Your task to perform on an android device: change keyboard looks Image 0: 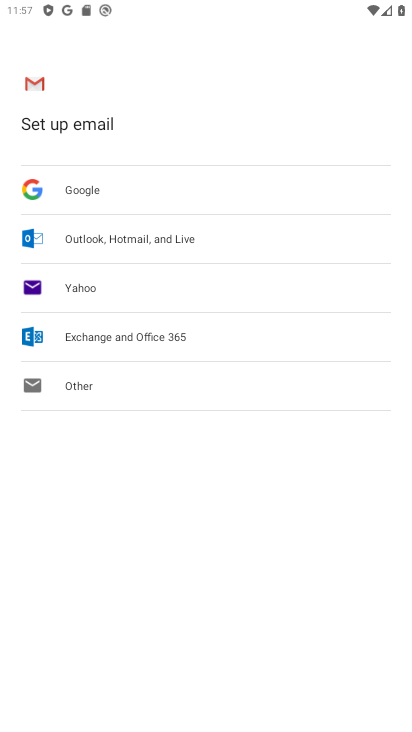
Step 0: drag from (151, 508) to (288, 126)
Your task to perform on an android device: change keyboard looks Image 1: 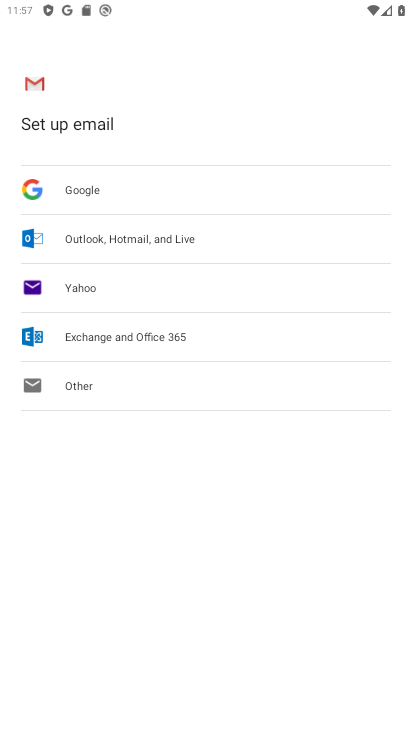
Step 1: press home button
Your task to perform on an android device: change keyboard looks Image 2: 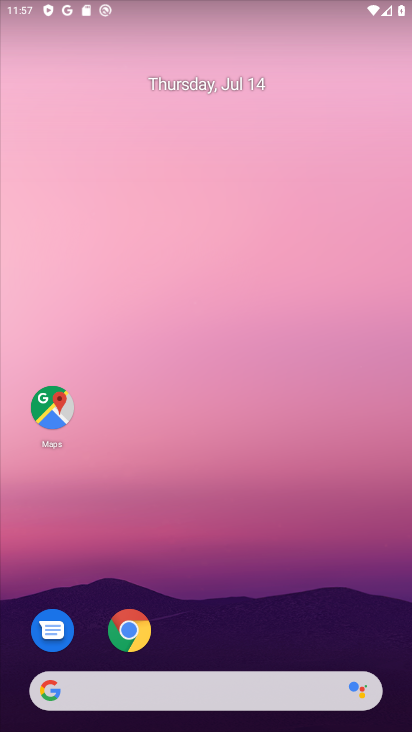
Step 2: drag from (219, 628) to (295, 98)
Your task to perform on an android device: change keyboard looks Image 3: 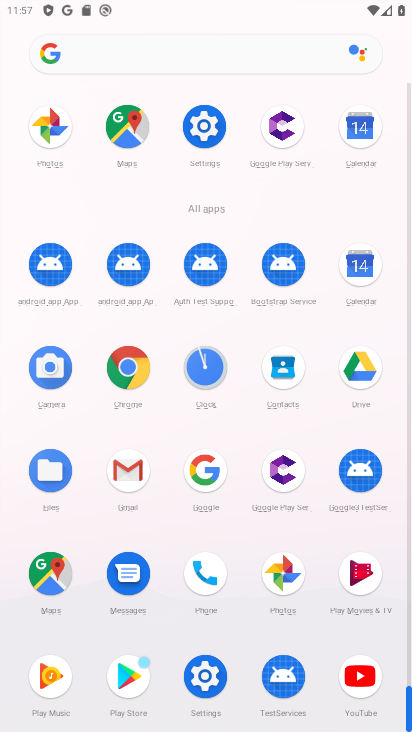
Step 3: click (197, 688)
Your task to perform on an android device: change keyboard looks Image 4: 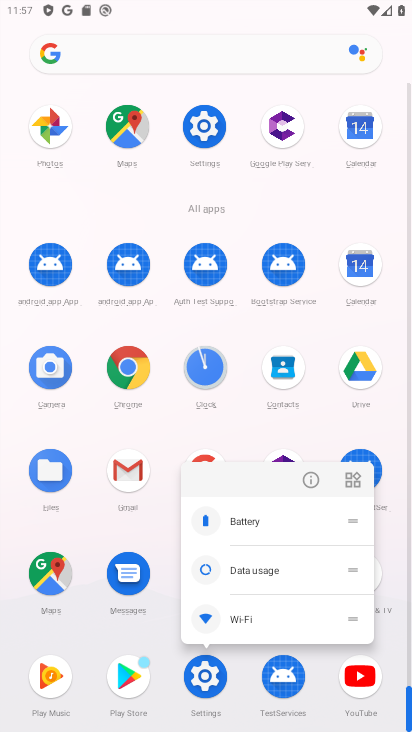
Step 4: click (301, 468)
Your task to perform on an android device: change keyboard looks Image 5: 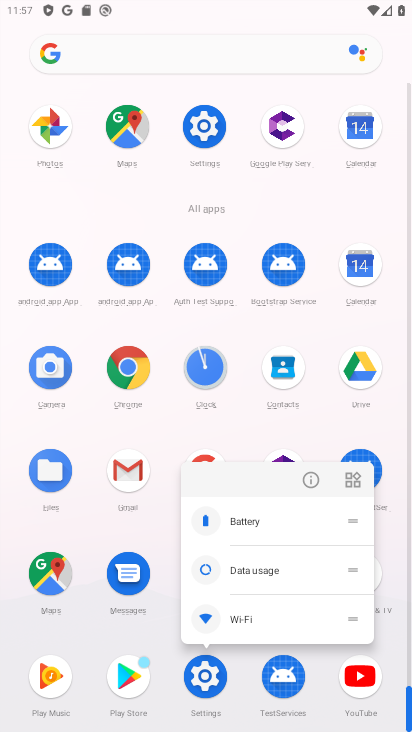
Step 5: click (301, 468)
Your task to perform on an android device: change keyboard looks Image 6: 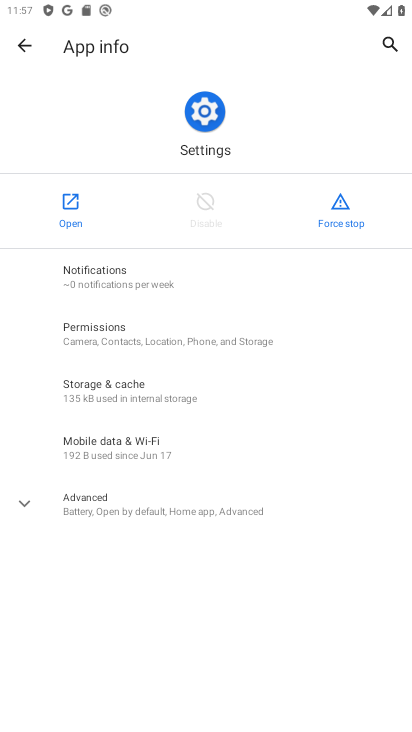
Step 6: click (67, 213)
Your task to perform on an android device: change keyboard looks Image 7: 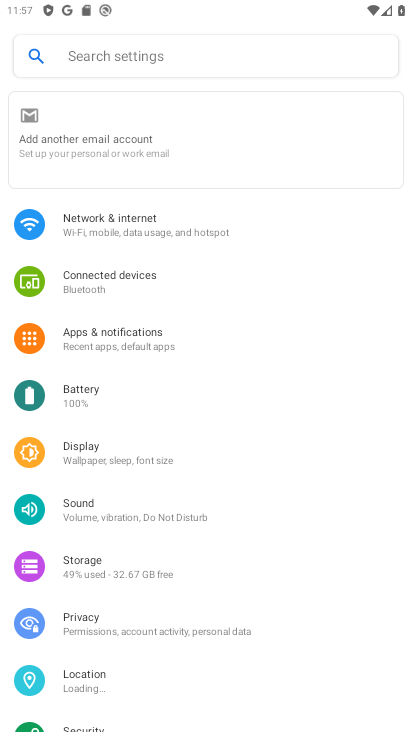
Step 7: drag from (188, 450) to (202, 254)
Your task to perform on an android device: change keyboard looks Image 8: 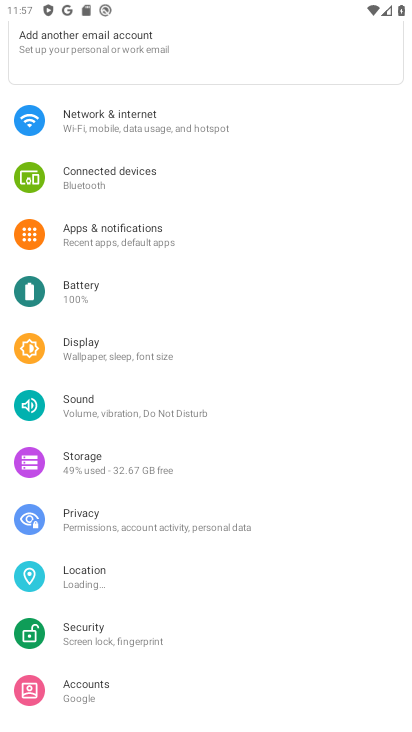
Step 8: drag from (187, 564) to (267, 218)
Your task to perform on an android device: change keyboard looks Image 9: 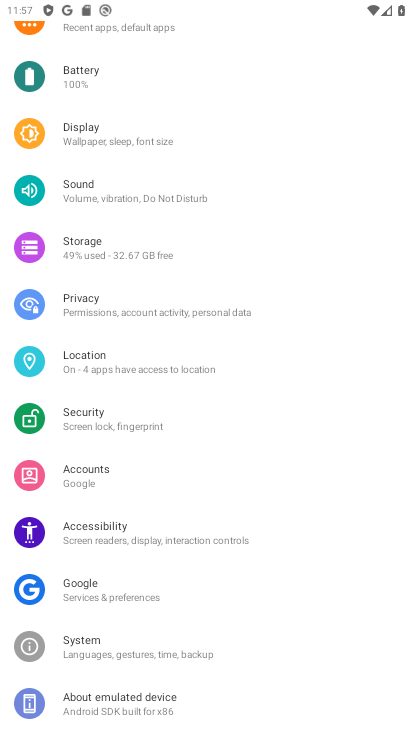
Step 9: click (82, 638)
Your task to perform on an android device: change keyboard looks Image 10: 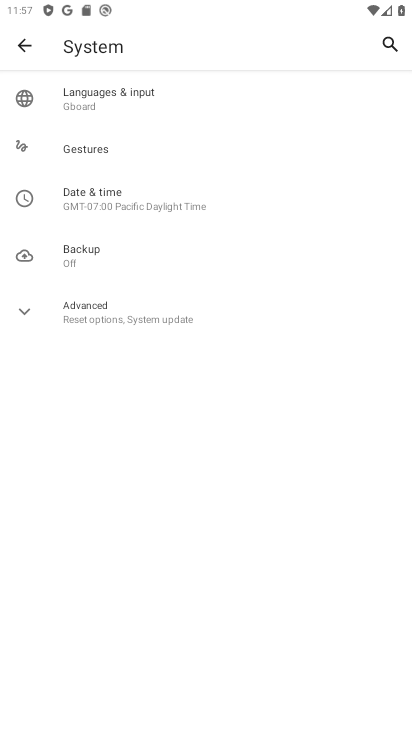
Step 10: click (138, 112)
Your task to perform on an android device: change keyboard looks Image 11: 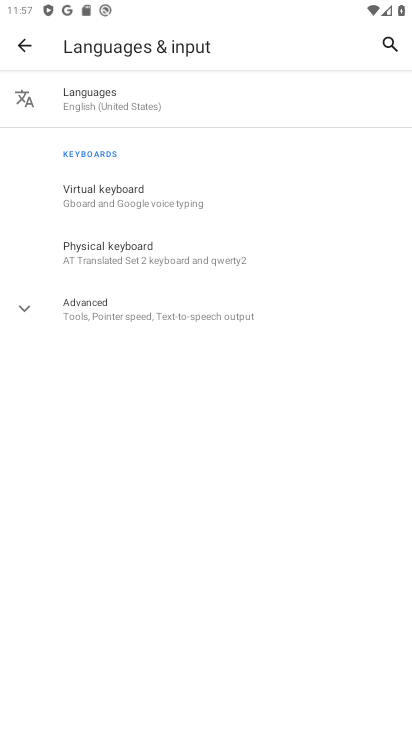
Step 11: click (157, 191)
Your task to perform on an android device: change keyboard looks Image 12: 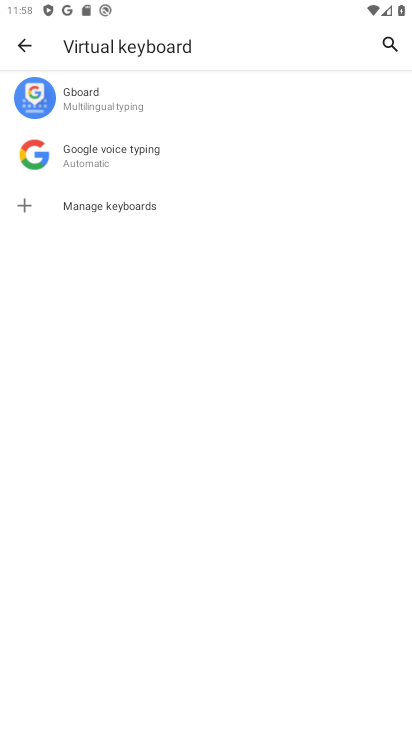
Step 12: drag from (249, 593) to (356, 108)
Your task to perform on an android device: change keyboard looks Image 13: 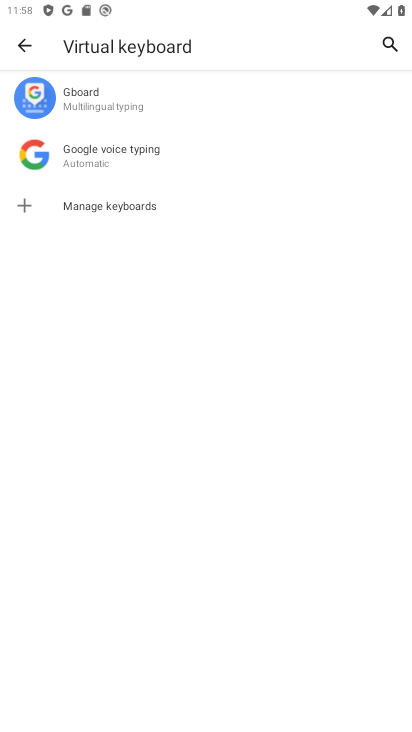
Step 13: drag from (232, 462) to (314, 111)
Your task to perform on an android device: change keyboard looks Image 14: 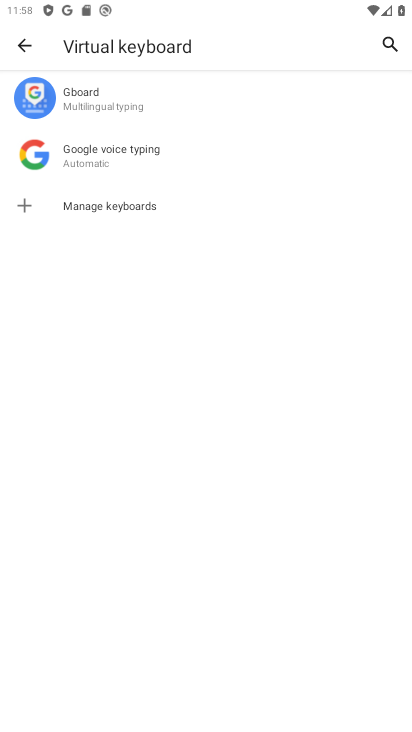
Step 14: drag from (195, 272) to (308, 16)
Your task to perform on an android device: change keyboard looks Image 15: 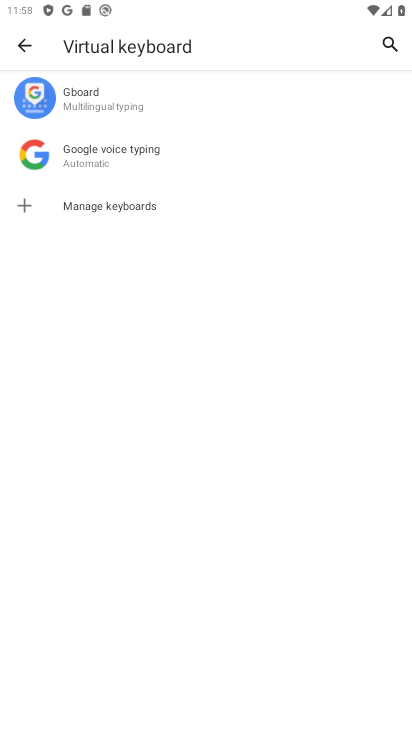
Step 15: drag from (216, 575) to (189, 56)
Your task to perform on an android device: change keyboard looks Image 16: 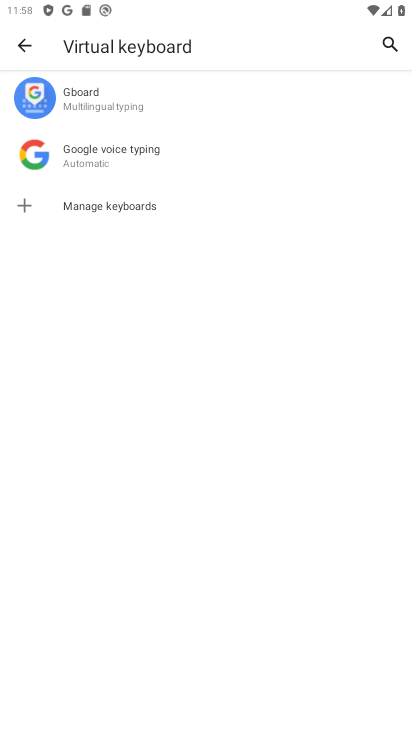
Step 16: drag from (246, 348) to (236, 278)
Your task to perform on an android device: change keyboard looks Image 17: 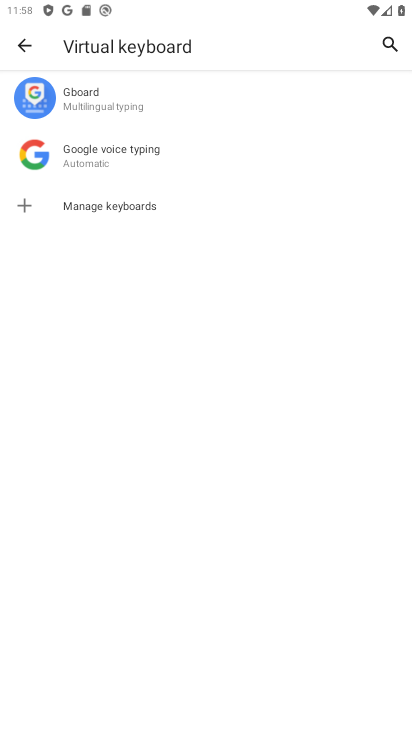
Step 17: drag from (173, 407) to (196, 562)
Your task to perform on an android device: change keyboard looks Image 18: 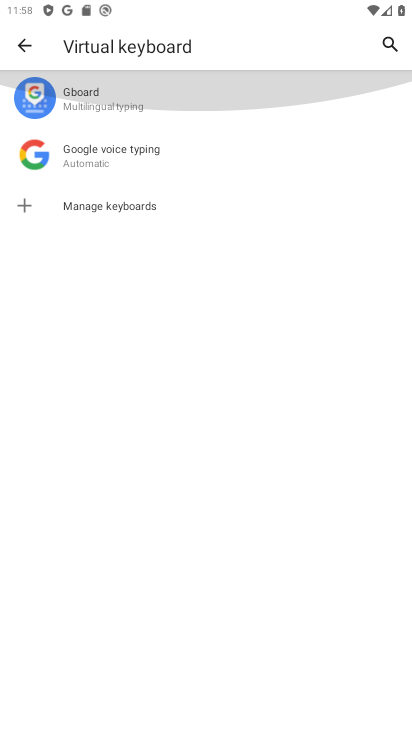
Step 18: drag from (196, 563) to (239, 236)
Your task to perform on an android device: change keyboard looks Image 19: 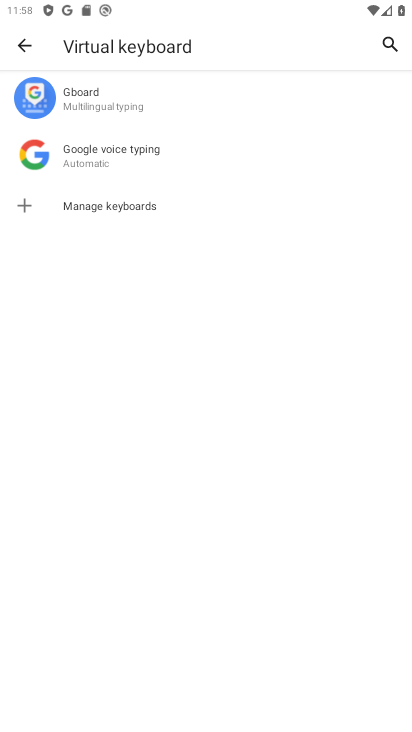
Step 19: click (118, 95)
Your task to perform on an android device: change keyboard looks Image 20: 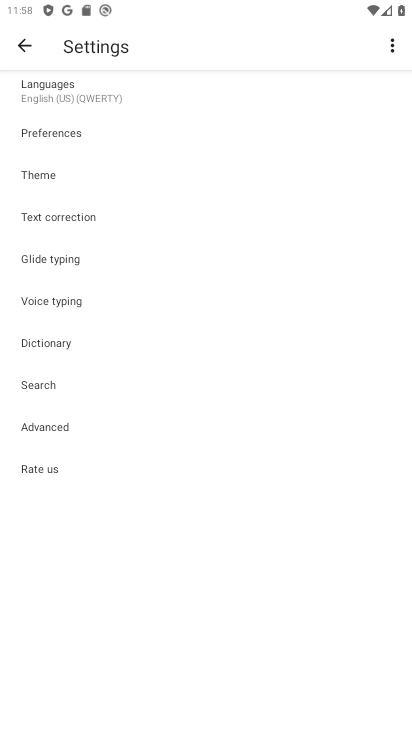
Step 20: drag from (141, 342) to (150, 162)
Your task to perform on an android device: change keyboard looks Image 21: 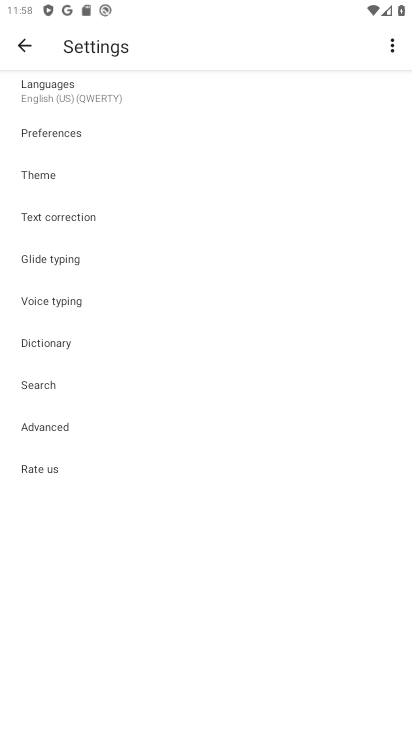
Step 21: drag from (181, 270) to (184, 194)
Your task to perform on an android device: change keyboard looks Image 22: 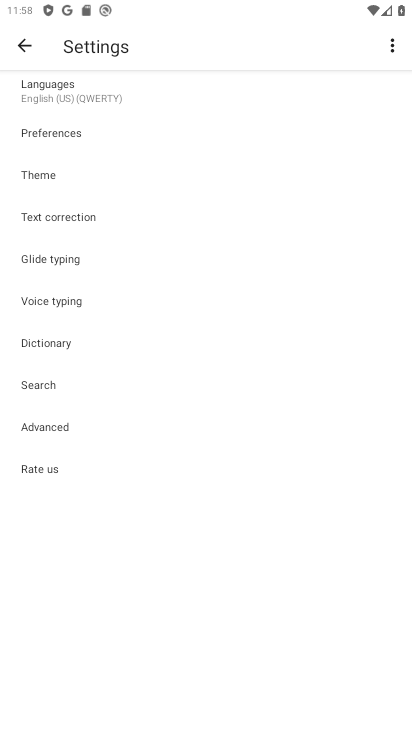
Step 22: drag from (117, 514) to (199, 166)
Your task to perform on an android device: change keyboard looks Image 23: 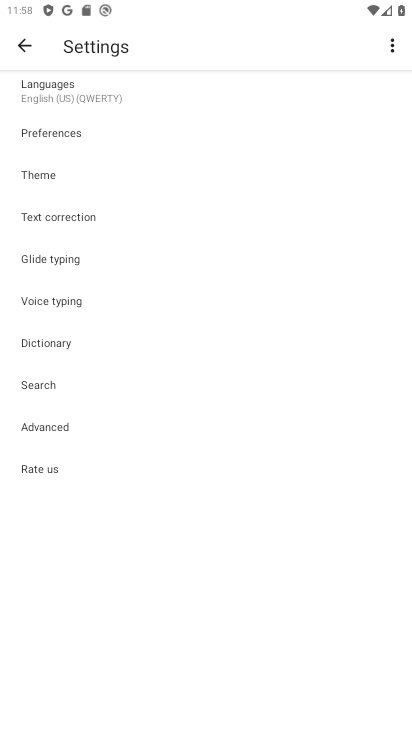
Step 23: click (59, 168)
Your task to perform on an android device: change keyboard looks Image 24: 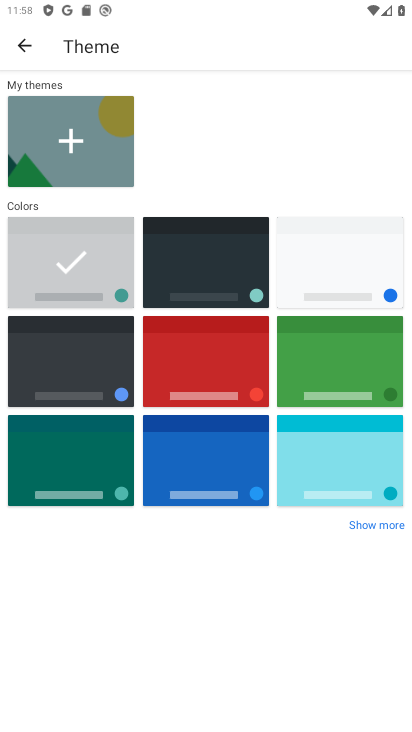
Step 24: click (200, 265)
Your task to perform on an android device: change keyboard looks Image 25: 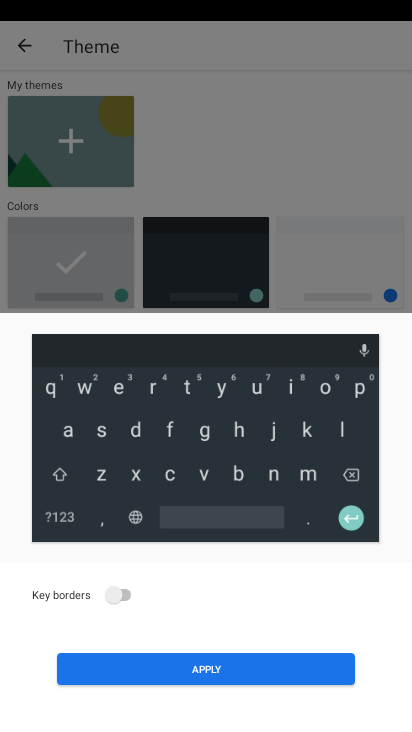
Step 25: click (145, 661)
Your task to perform on an android device: change keyboard looks Image 26: 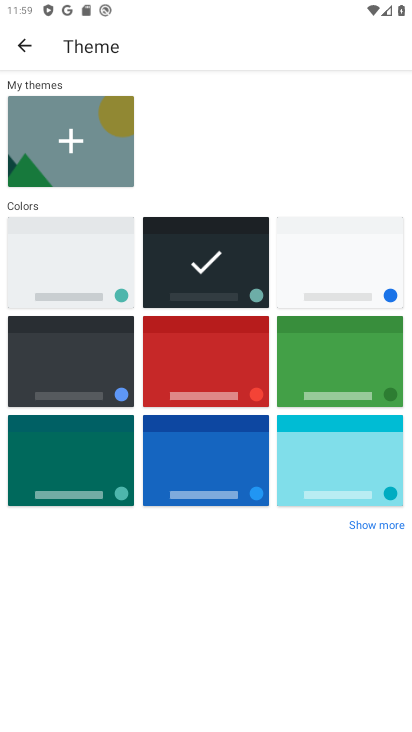
Step 26: task complete